Your task to perform on an android device: Open calendar and show me the second week of next month Image 0: 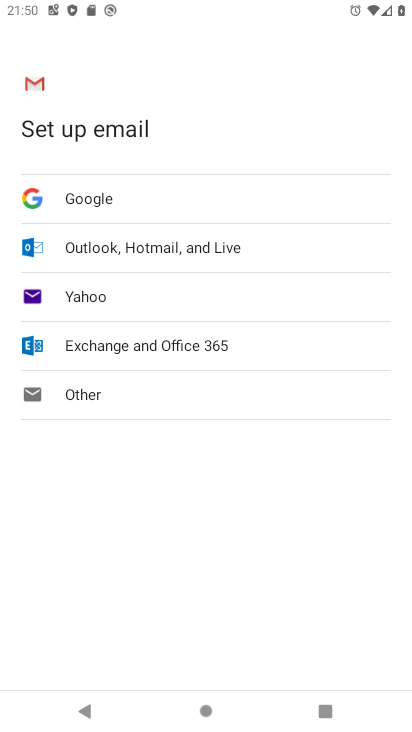
Step 0: press home button
Your task to perform on an android device: Open calendar and show me the second week of next month Image 1: 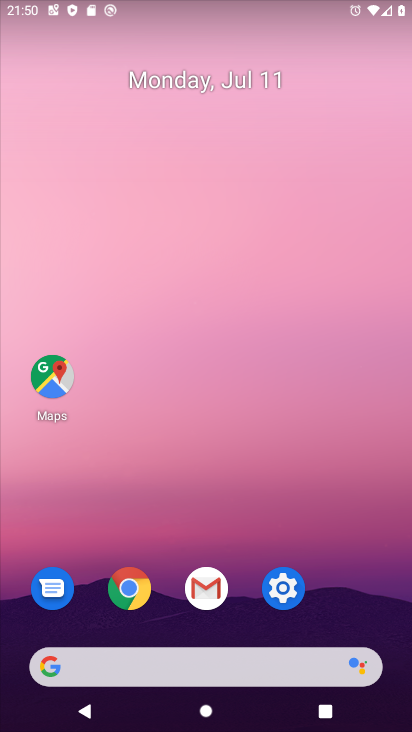
Step 1: drag from (230, 682) to (322, 284)
Your task to perform on an android device: Open calendar and show me the second week of next month Image 2: 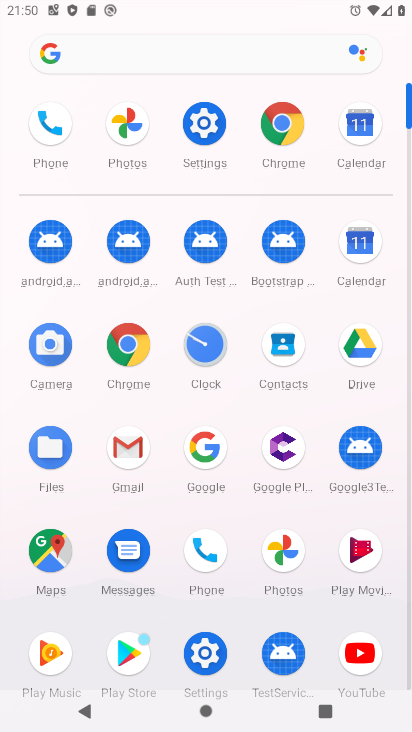
Step 2: click (361, 256)
Your task to perform on an android device: Open calendar and show me the second week of next month Image 3: 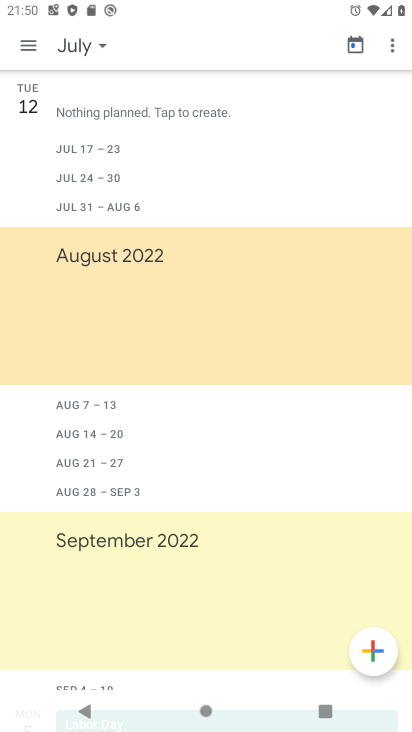
Step 3: click (32, 46)
Your task to perform on an android device: Open calendar and show me the second week of next month Image 4: 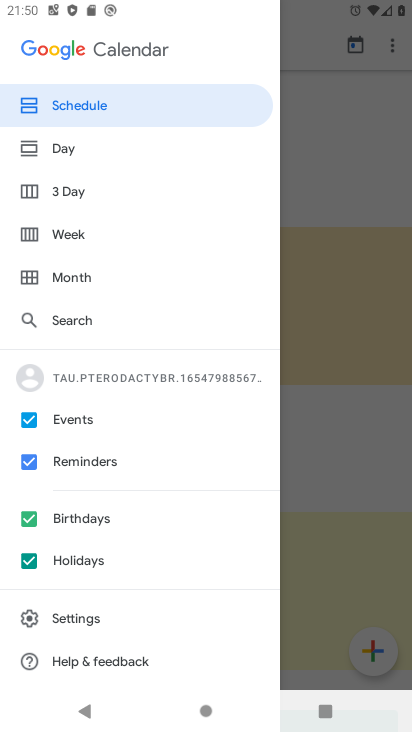
Step 4: click (92, 276)
Your task to perform on an android device: Open calendar and show me the second week of next month Image 5: 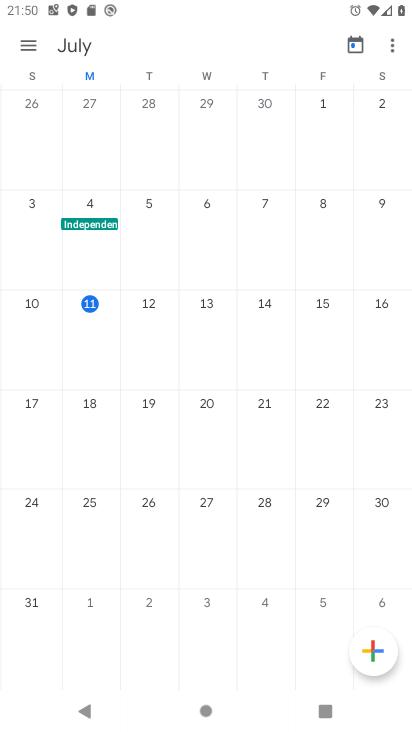
Step 5: drag from (347, 331) to (1, 388)
Your task to perform on an android device: Open calendar and show me the second week of next month Image 6: 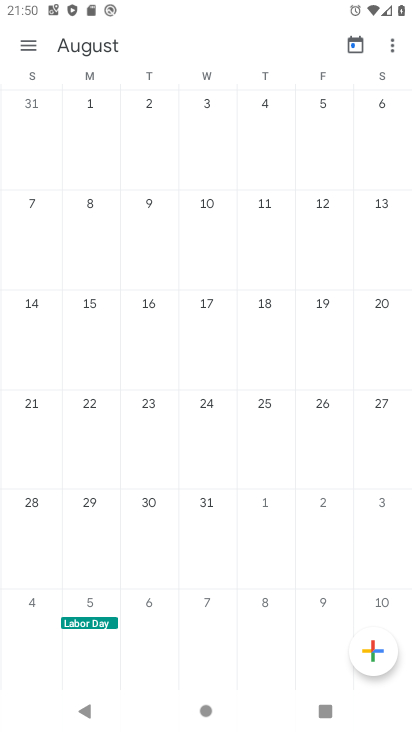
Step 6: click (88, 233)
Your task to perform on an android device: Open calendar and show me the second week of next month Image 7: 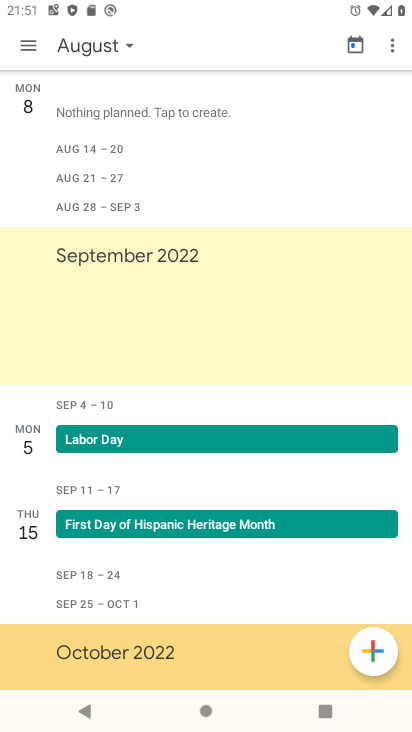
Step 7: task complete